Your task to perform on an android device: Open calendar and show me the fourth week of next month Image 0: 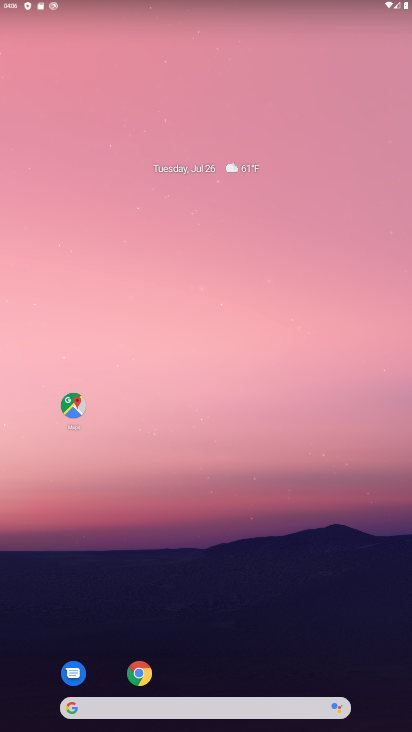
Step 0: drag from (194, 596) to (179, 27)
Your task to perform on an android device: Open calendar and show me the fourth week of next month Image 1: 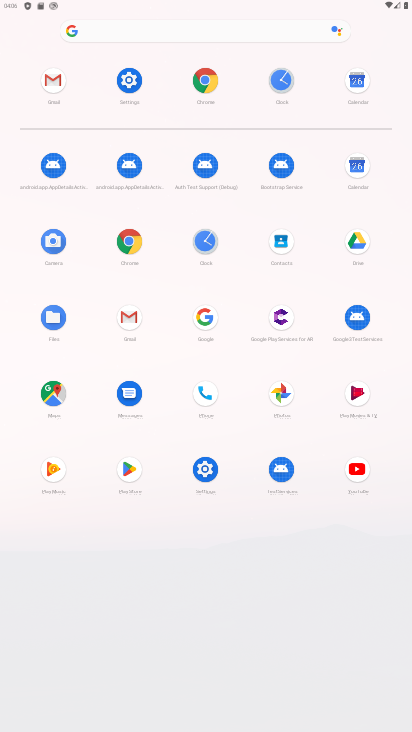
Step 1: click (350, 169)
Your task to perform on an android device: Open calendar and show me the fourth week of next month Image 2: 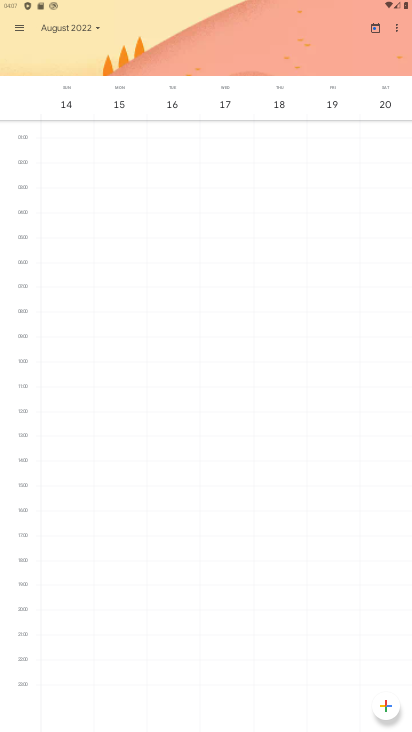
Step 2: drag from (398, 104) to (49, 87)
Your task to perform on an android device: Open calendar and show me the fourth week of next month Image 3: 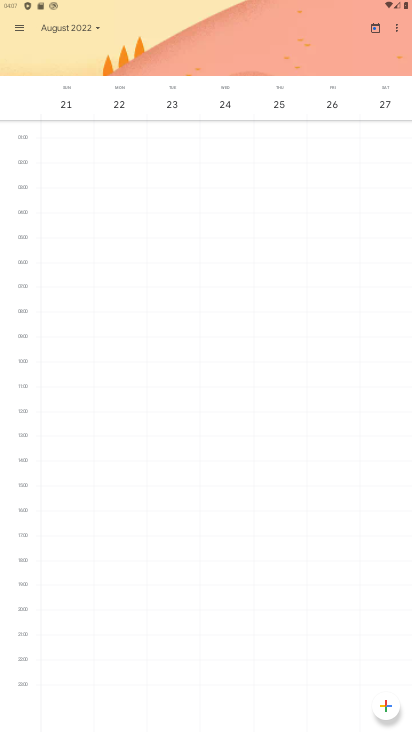
Step 3: click (62, 101)
Your task to perform on an android device: Open calendar and show me the fourth week of next month Image 4: 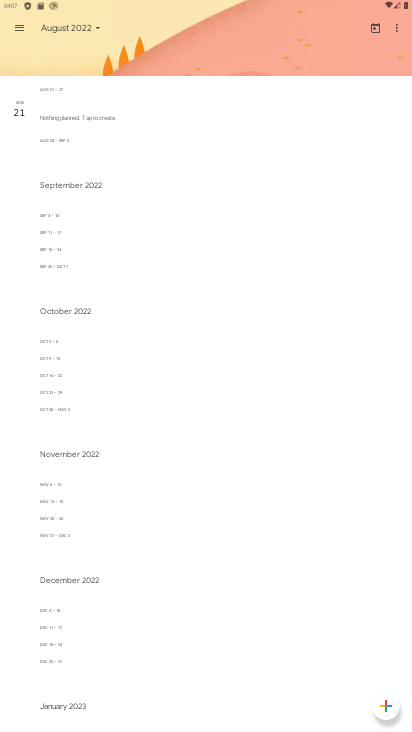
Step 4: task complete